Your task to perform on an android device: open chrome and create a bookmark for the current page Image 0: 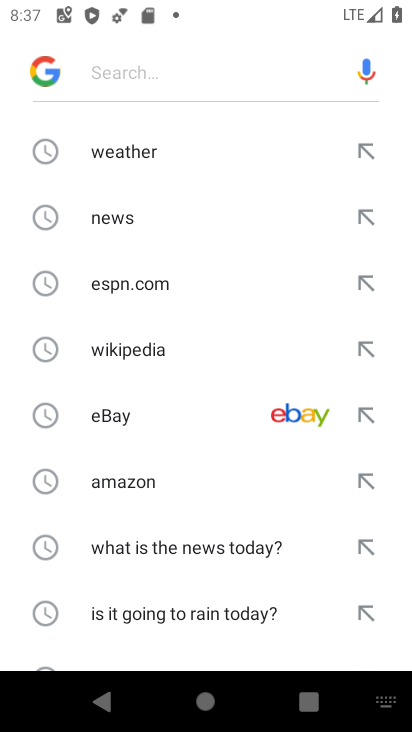
Step 0: press home button
Your task to perform on an android device: open chrome and create a bookmark for the current page Image 1: 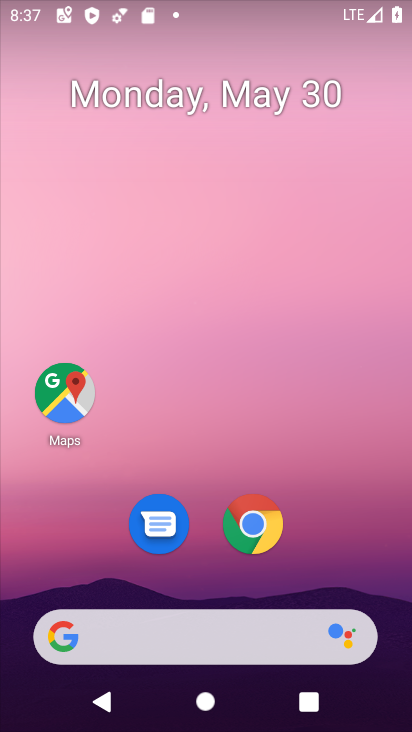
Step 1: click (261, 513)
Your task to perform on an android device: open chrome and create a bookmark for the current page Image 2: 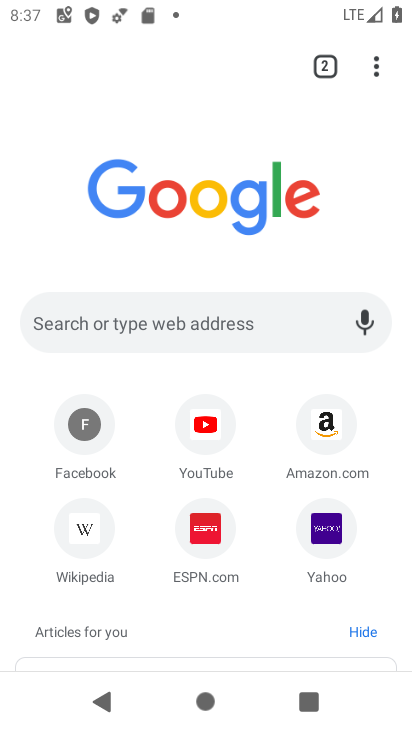
Step 2: click (378, 67)
Your task to perform on an android device: open chrome and create a bookmark for the current page Image 3: 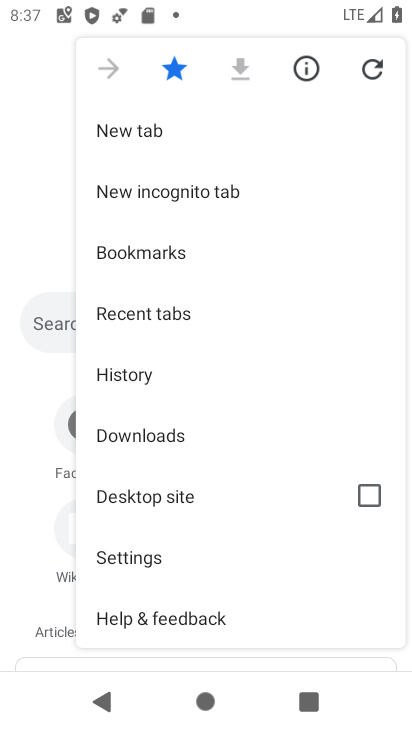
Step 3: task complete